Your task to perform on an android device: change alarm snooze length Image 0: 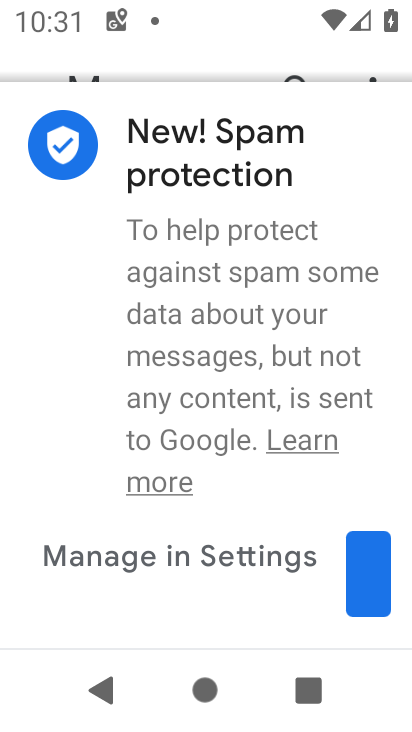
Step 0: press home button
Your task to perform on an android device: change alarm snooze length Image 1: 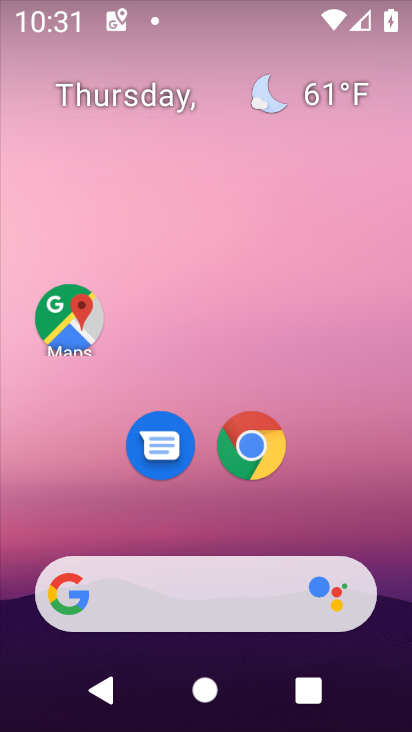
Step 1: drag from (204, 493) to (247, 40)
Your task to perform on an android device: change alarm snooze length Image 2: 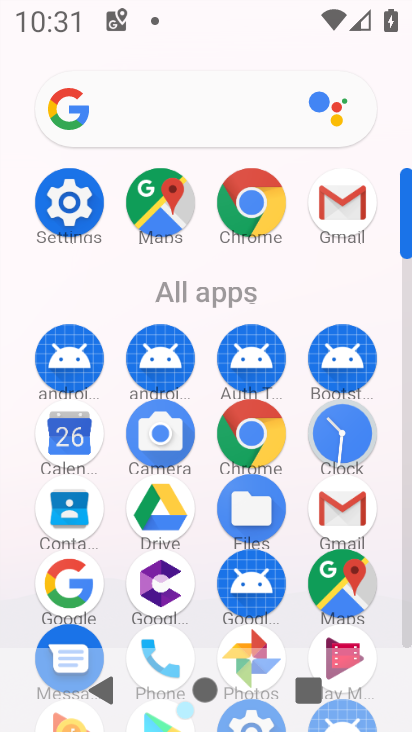
Step 2: click (321, 426)
Your task to perform on an android device: change alarm snooze length Image 3: 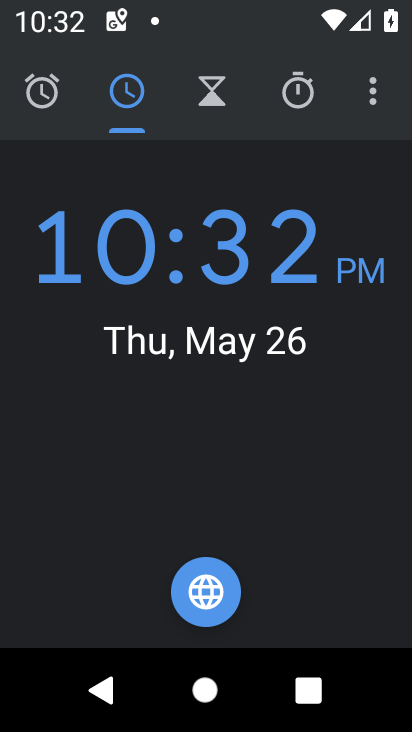
Step 3: click (360, 97)
Your task to perform on an android device: change alarm snooze length Image 4: 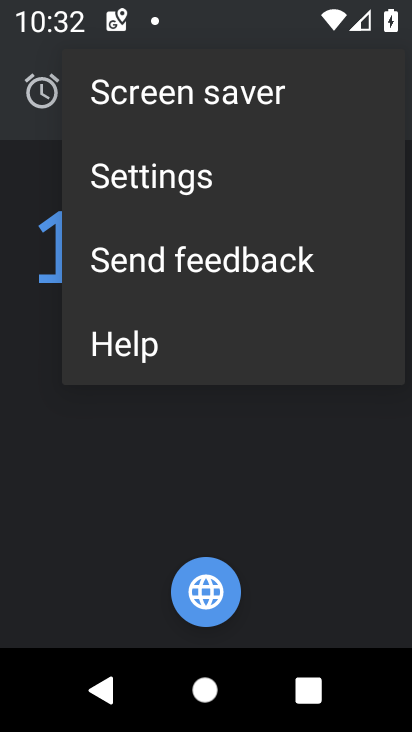
Step 4: click (231, 149)
Your task to perform on an android device: change alarm snooze length Image 5: 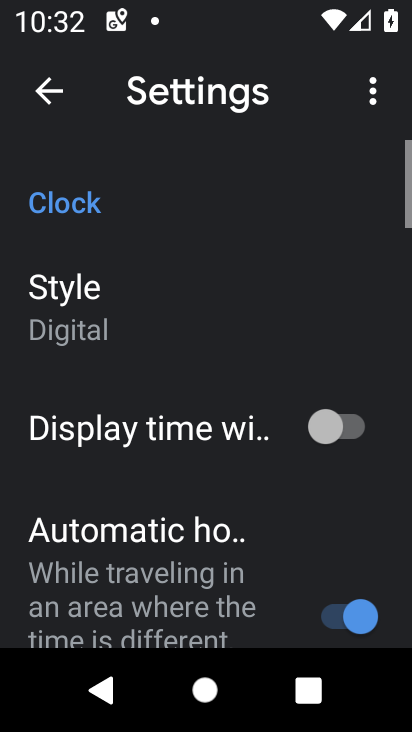
Step 5: drag from (163, 533) to (132, 76)
Your task to perform on an android device: change alarm snooze length Image 6: 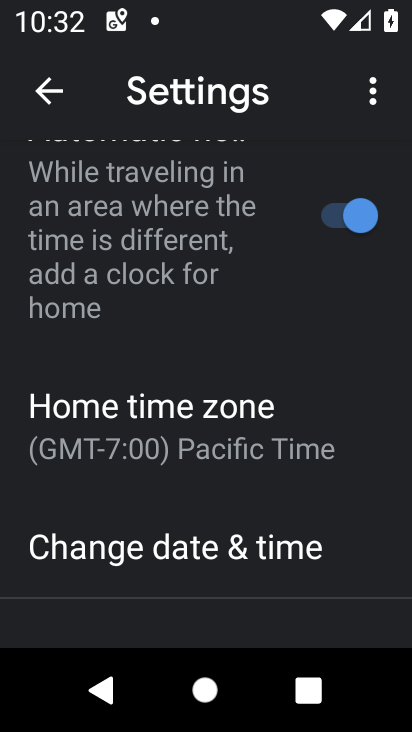
Step 6: drag from (162, 570) to (147, 94)
Your task to perform on an android device: change alarm snooze length Image 7: 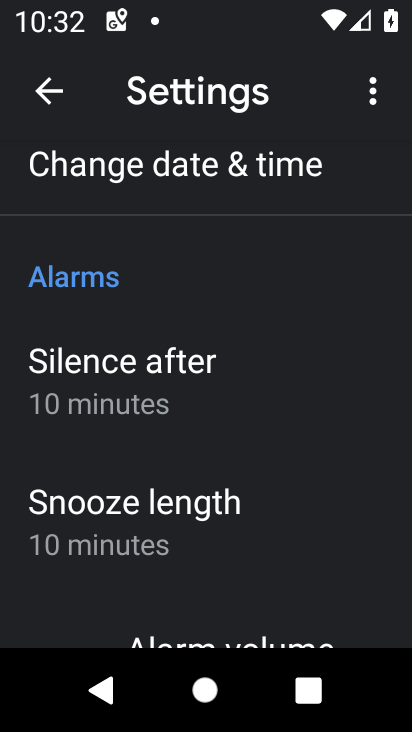
Step 7: click (172, 521)
Your task to perform on an android device: change alarm snooze length Image 8: 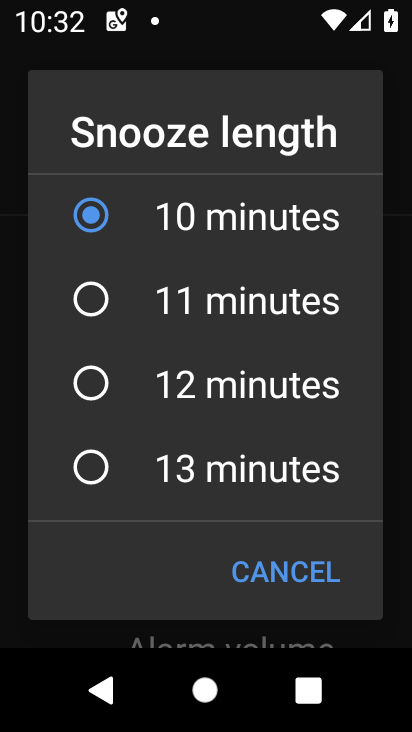
Step 8: click (186, 285)
Your task to perform on an android device: change alarm snooze length Image 9: 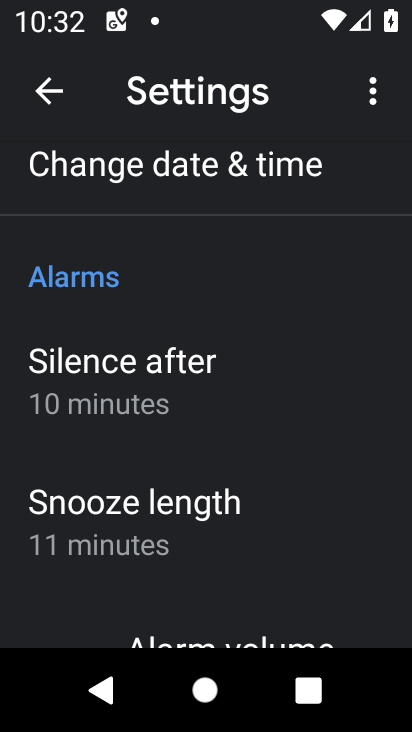
Step 9: task complete